Your task to perform on an android device: Open Google Maps and go to "Timeline" Image 0: 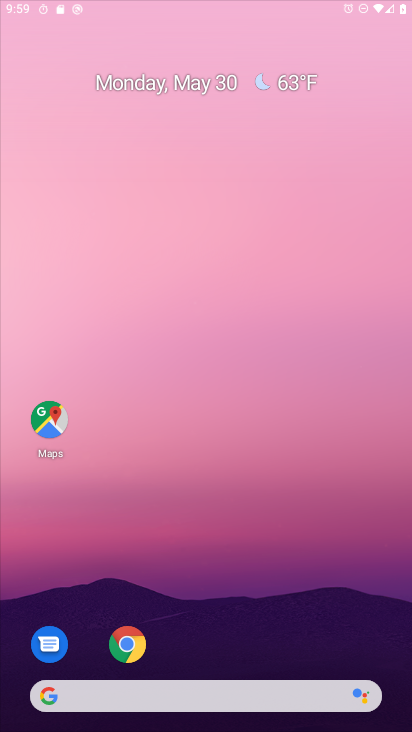
Step 0: drag from (201, 620) to (210, 53)
Your task to perform on an android device: Open Google Maps and go to "Timeline" Image 1: 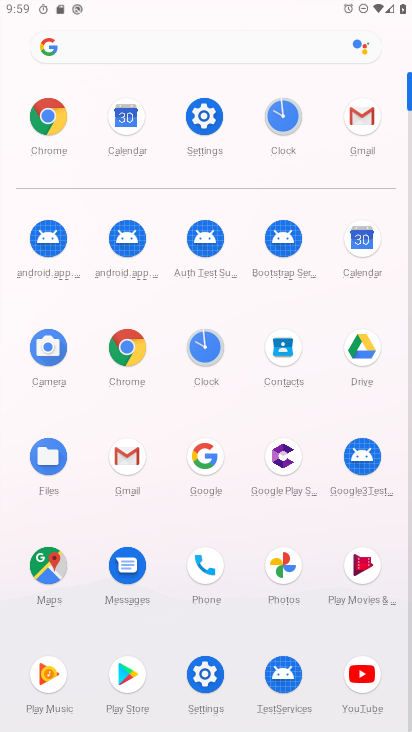
Step 1: click (46, 564)
Your task to perform on an android device: Open Google Maps and go to "Timeline" Image 2: 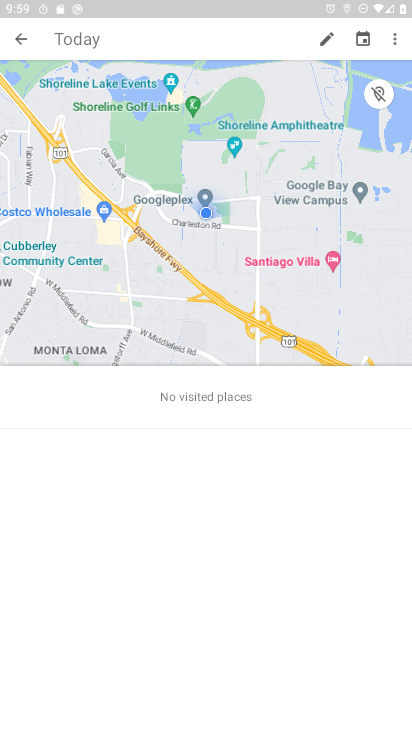
Step 2: task complete